Your task to perform on an android device: Open the phone app and click the voicemail tab. Image 0: 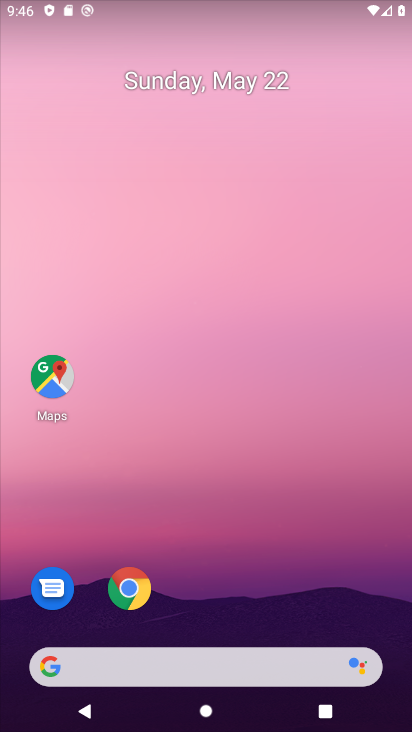
Step 0: drag from (218, 599) to (228, 46)
Your task to perform on an android device: Open the phone app and click the voicemail tab. Image 1: 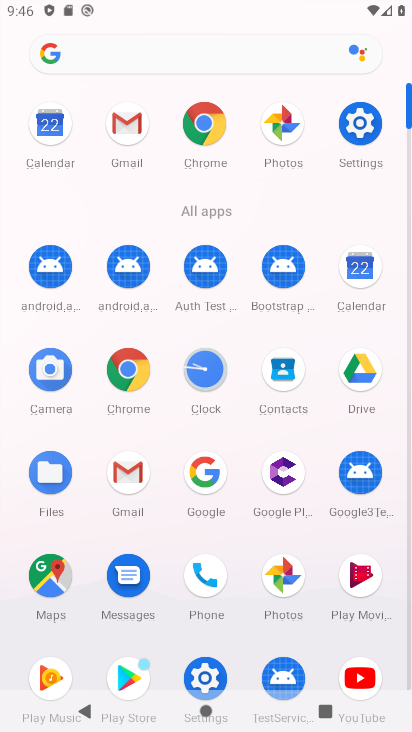
Step 1: click (196, 576)
Your task to perform on an android device: Open the phone app and click the voicemail tab. Image 2: 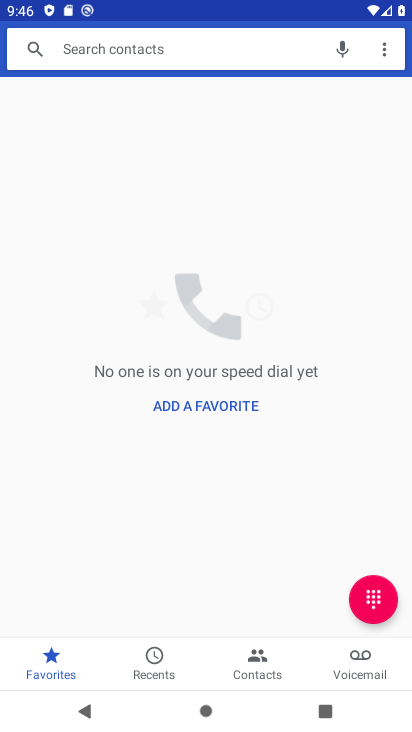
Step 2: click (367, 681)
Your task to perform on an android device: Open the phone app and click the voicemail tab. Image 3: 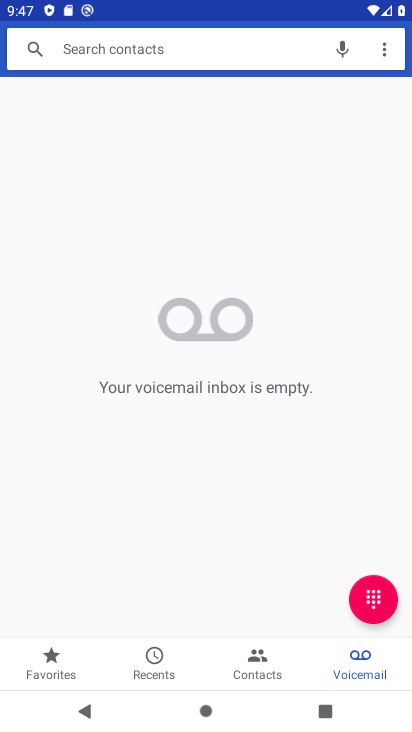
Step 3: task complete